Your task to perform on an android device: toggle pop-ups in chrome Image 0: 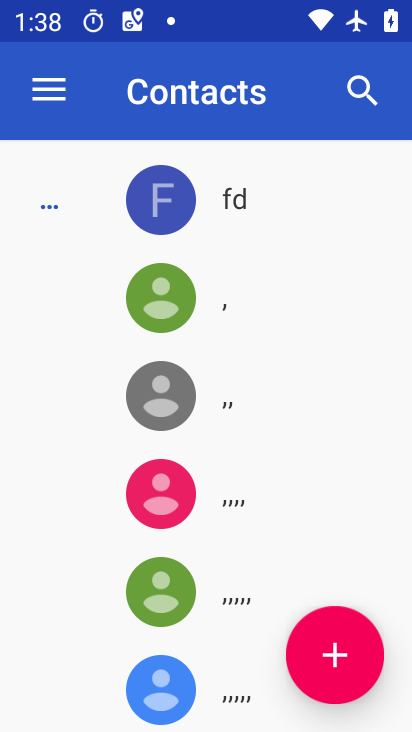
Step 0: press home button
Your task to perform on an android device: toggle pop-ups in chrome Image 1: 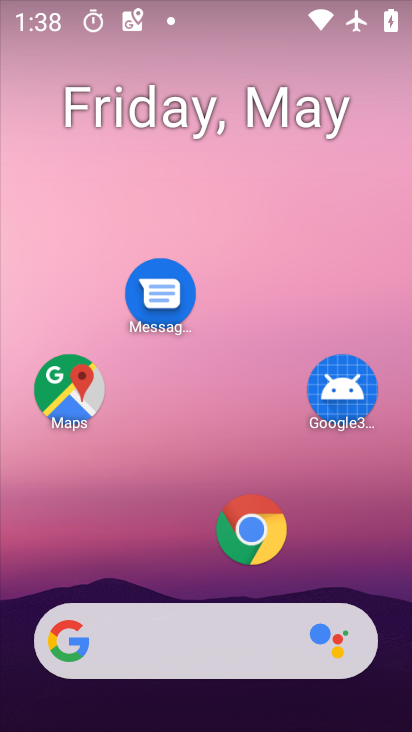
Step 1: drag from (213, 636) to (130, 45)
Your task to perform on an android device: toggle pop-ups in chrome Image 2: 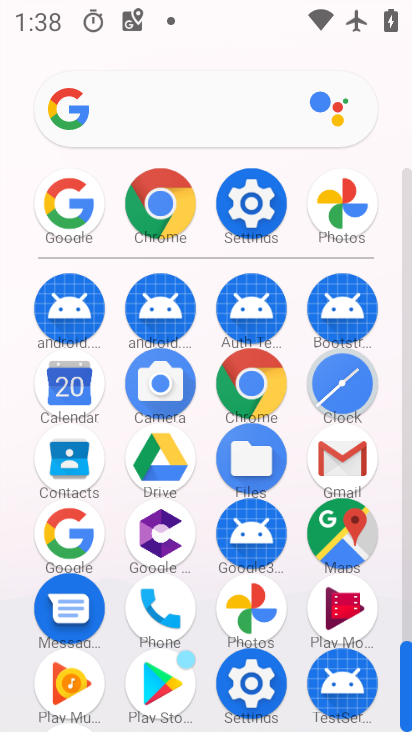
Step 2: click (181, 230)
Your task to perform on an android device: toggle pop-ups in chrome Image 3: 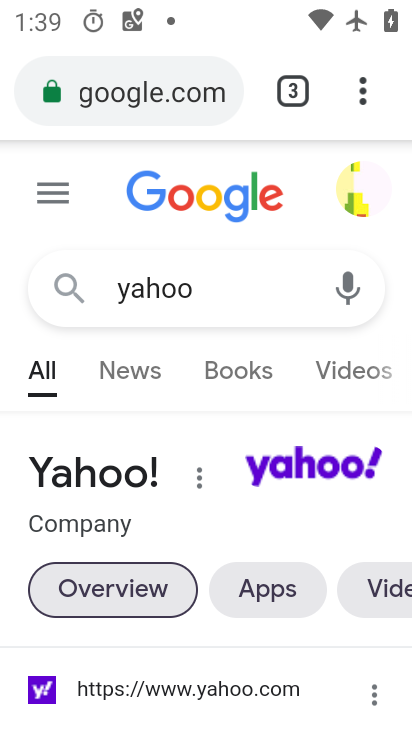
Step 3: click (357, 89)
Your task to perform on an android device: toggle pop-ups in chrome Image 4: 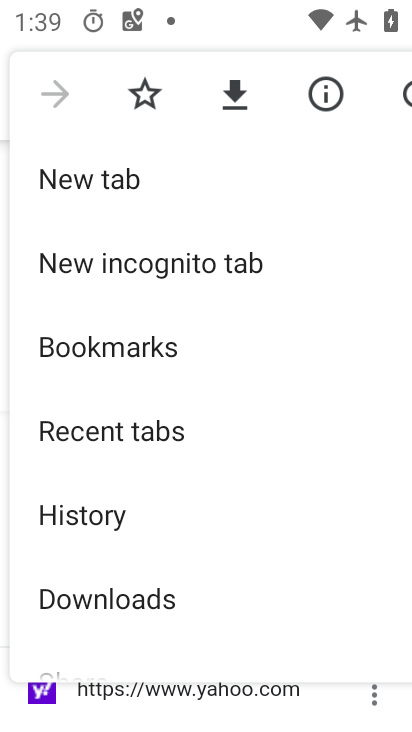
Step 4: drag from (135, 539) to (73, 187)
Your task to perform on an android device: toggle pop-ups in chrome Image 5: 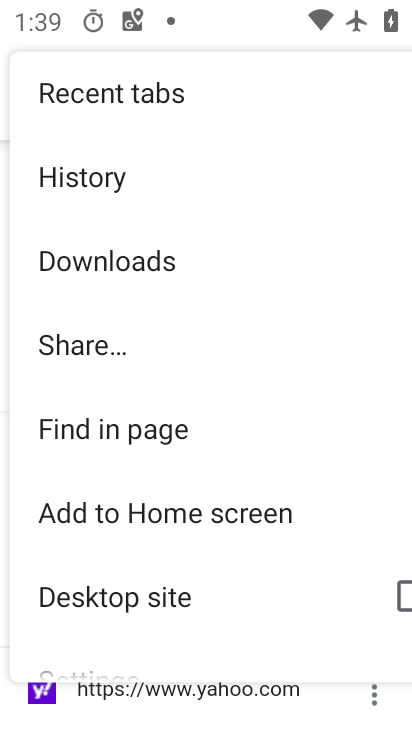
Step 5: drag from (162, 547) to (92, 199)
Your task to perform on an android device: toggle pop-ups in chrome Image 6: 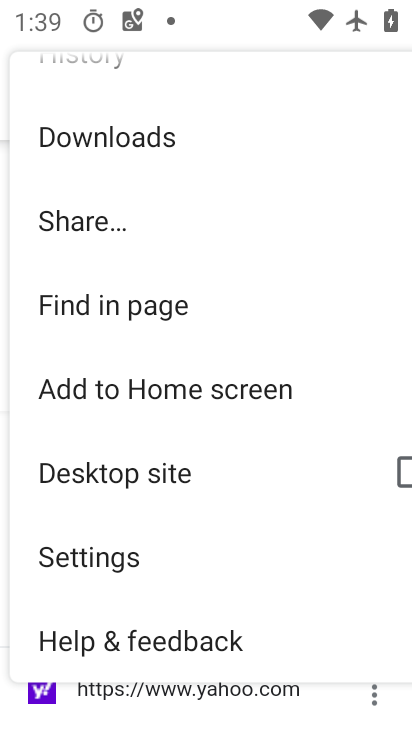
Step 6: click (172, 554)
Your task to perform on an android device: toggle pop-ups in chrome Image 7: 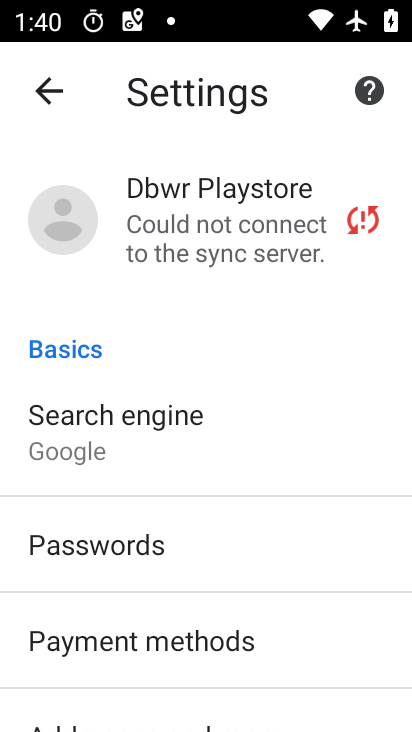
Step 7: drag from (197, 557) to (96, 176)
Your task to perform on an android device: toggle pop-ups in chrome Image 8: 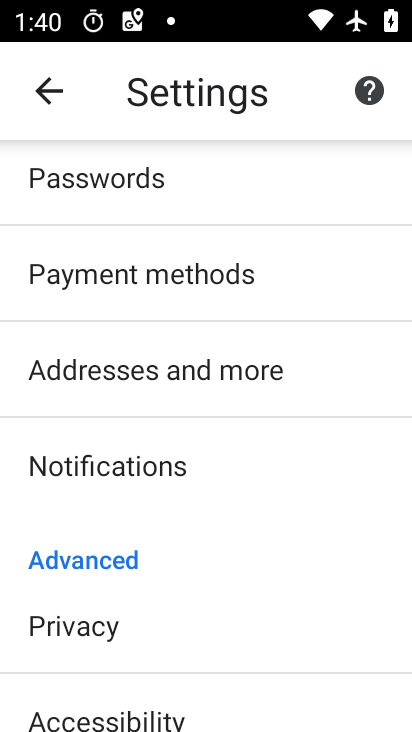
Step 8: drag from (181, 596) to (95, 272)
Your task to perform on an android device: toggle pop-ups in chrome Image 9: 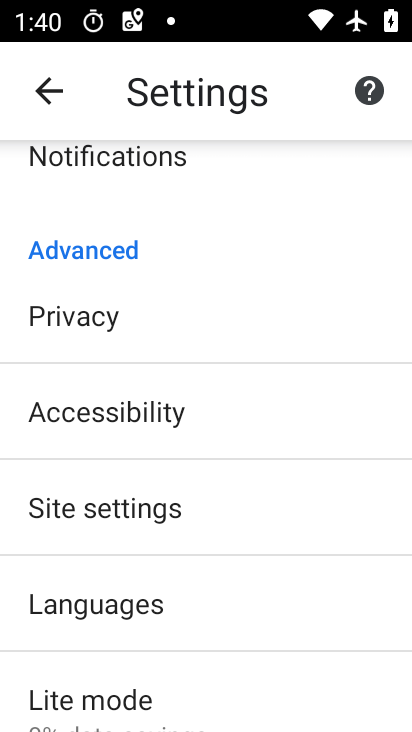
Step 9: drag from (215, 541) to (84, 75)
Your task to perform on an android device: toggle pop-ups in chrome Image 10: 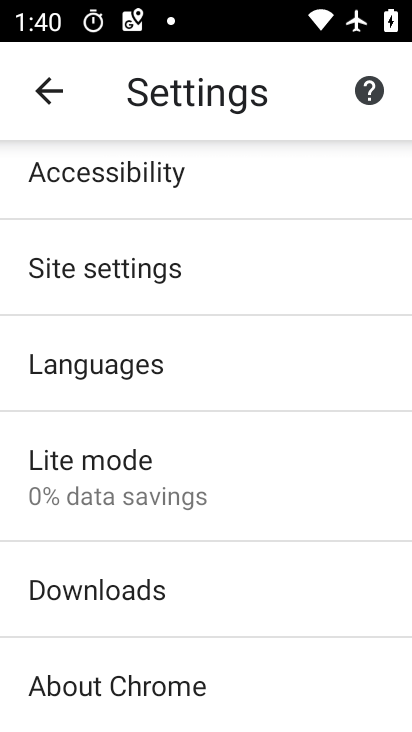
Step 10: drag from (166, 636) to (115, 308)
Your task to perform on an android device: toggle pop-ups in chrome Image 11: 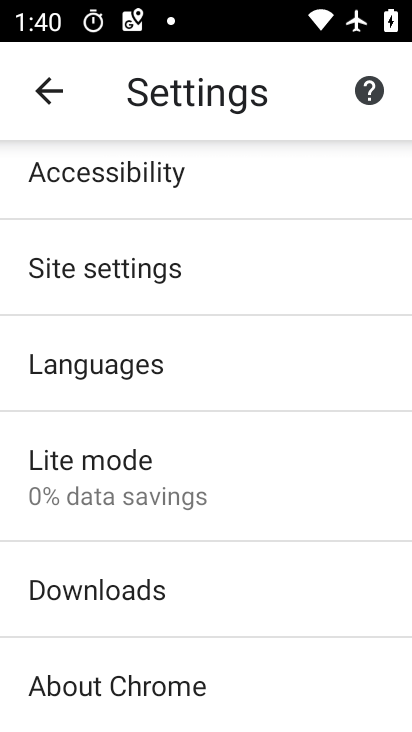
Step 11: click (112, 265)
Your task to perform on an android device: toggle pop-ups in chrome Image 12: 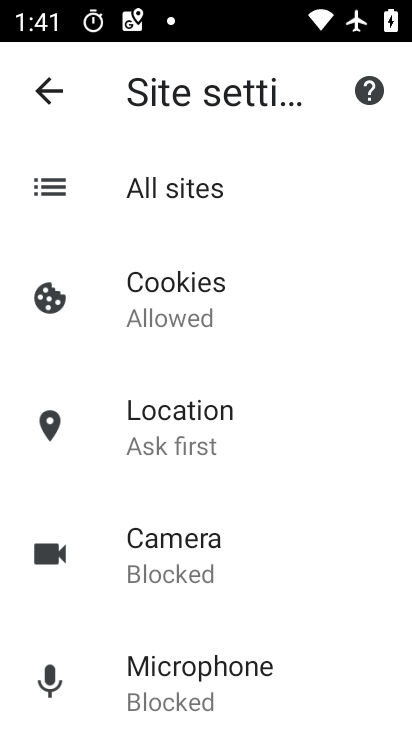
Step 12: drag from (221, 619) to (149, 248)
Your task to perform on an android device: toggle pop-ups in chrome Image 13: 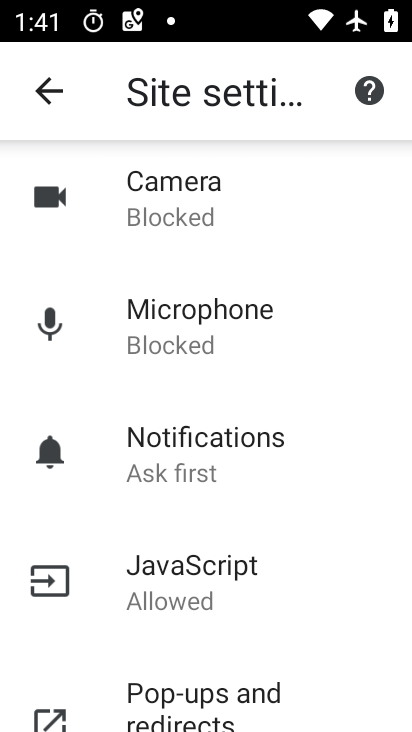
Step 13: click (258, 697)
Your task to perform on an android device: toggle pop-ups in chrome Image 14: 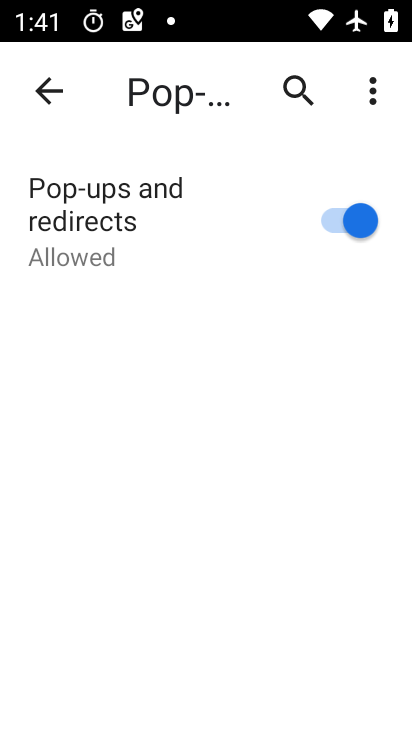
Step 14: click (332, 220)
Your task to perform on an android device: toggle pop-ups in chrome Image 15: 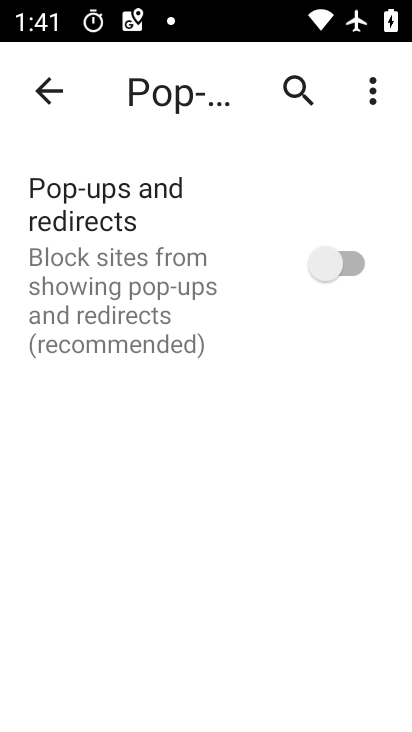
Step 15: task complete